Your task to perform on an android device: toggle translation in the chrome app Image 0: 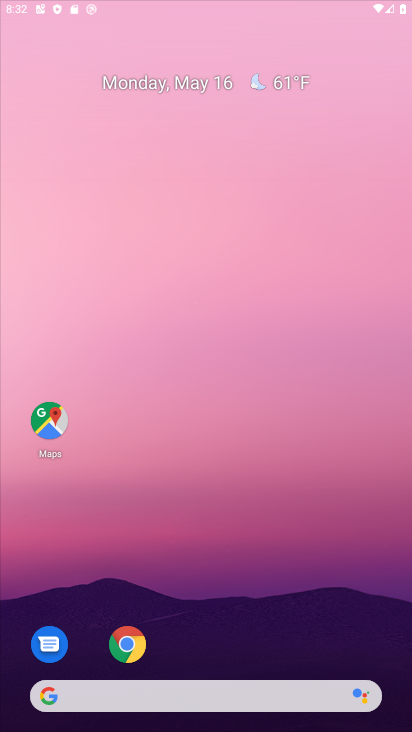
Step 0: click (294, 128)
Your task to perform on an android device: toggle translation in the chrome app Image 1: 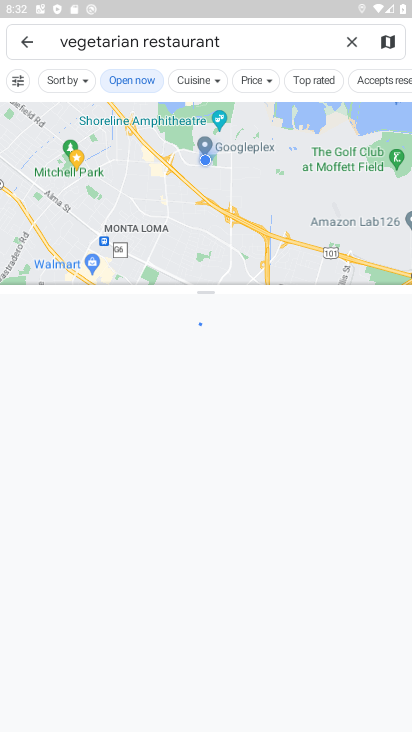
Step 1: press home button
Your task to perform on an android device: toggle translation in the chrome app Image 2: 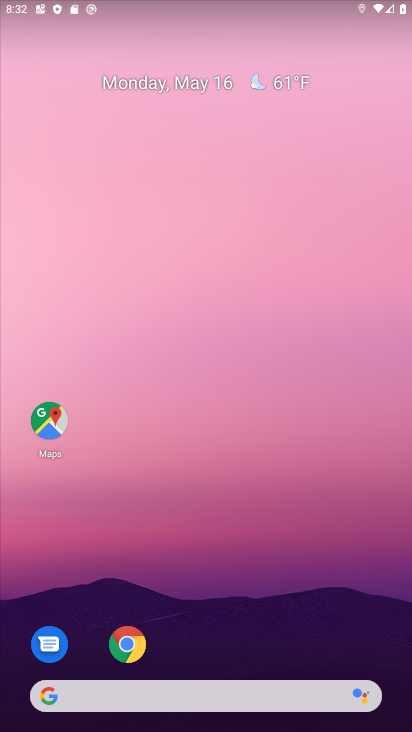
Step 2: click (127, 645)
Your task to perform on an android device: toggle translation in the chrome app Image 3: 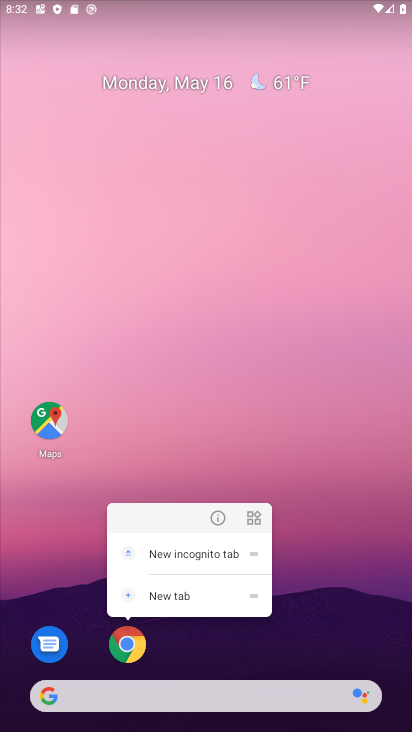
Step 3: click (127, 645)
Your task to perform on an android device: toggle translation in the chrome app Image 4: 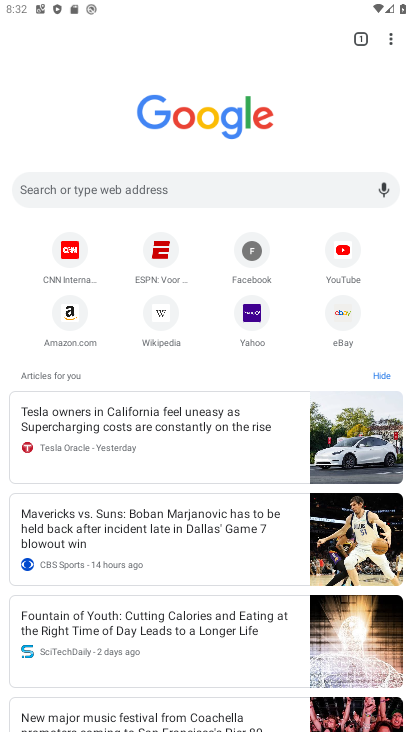
Step 4: click (387, 35)
Your task to perform on an android device: toggle translation in the chrome app Image 5: 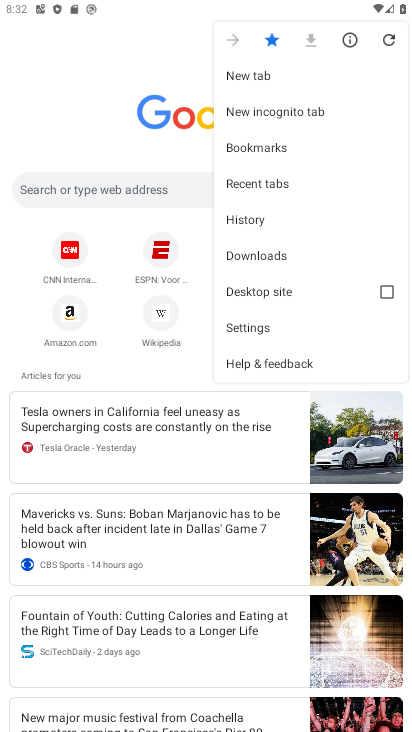
Step 5: click (251, 333)
Your task to perform on an android device: toggle translation in the chrome app Image 6: 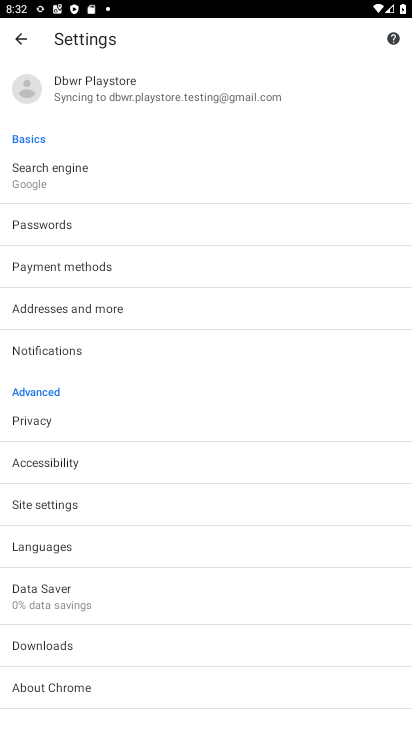
Step 6: click (94, 548)
Your task to perform on an android device: toggle translation in the chrome app Image 7: 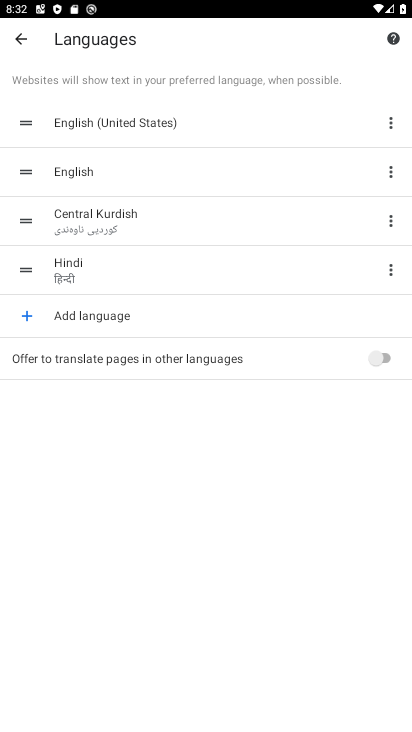
Step 7: click (383, 354)
Your task to perform on an android device: toggle translation in the chrome app Image 8: 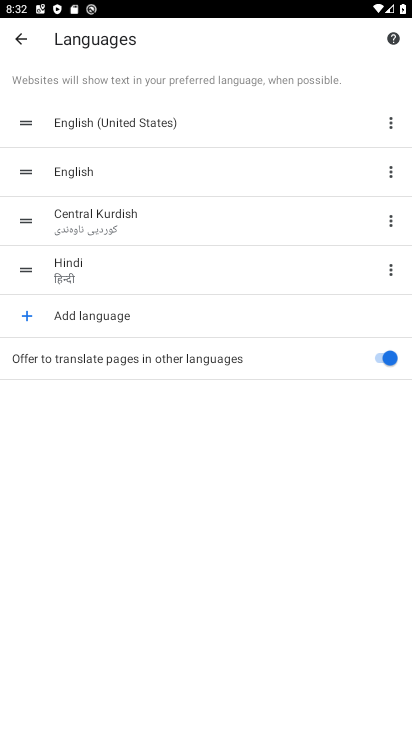
Step 8: task complete